Your task to perform on an android device: Search for the best selling books Image 0: 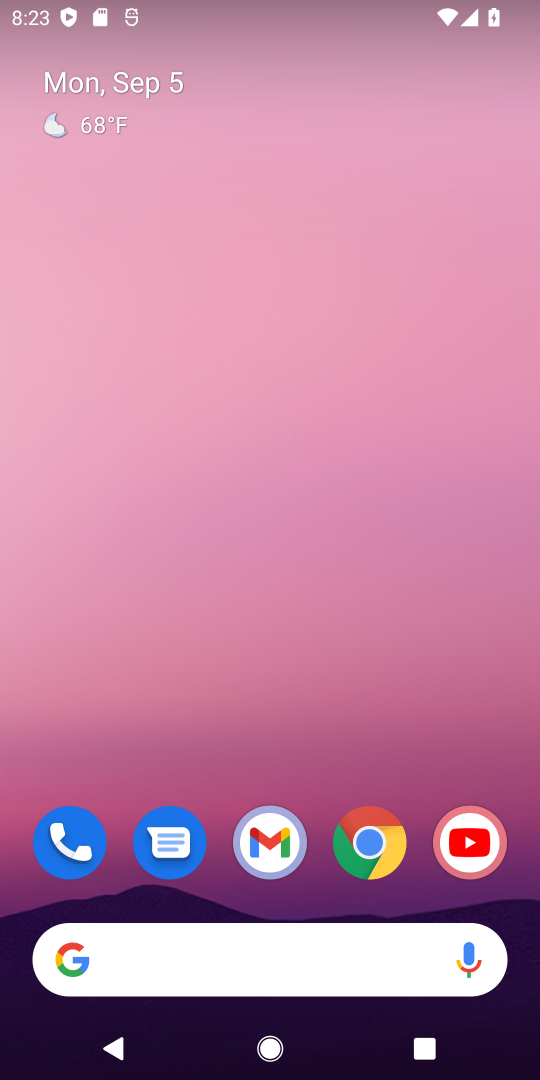
Step 0: click (371, 845)
Your task to perform on an android device: Search for the best selling books Image 1: 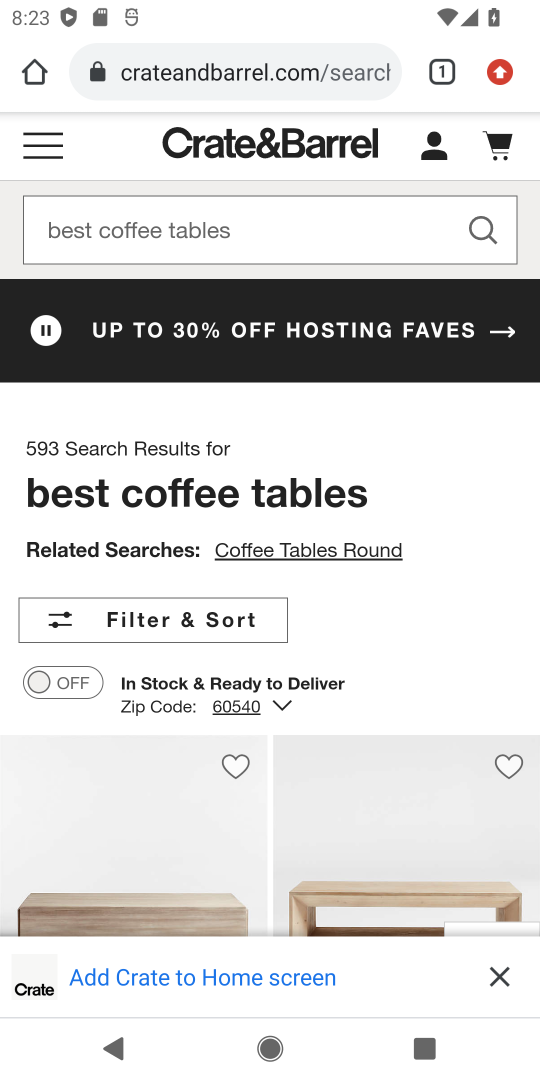
Step 1: click (319, 72)
Your task to perform on an android device: Search for the best selling books Image 2: 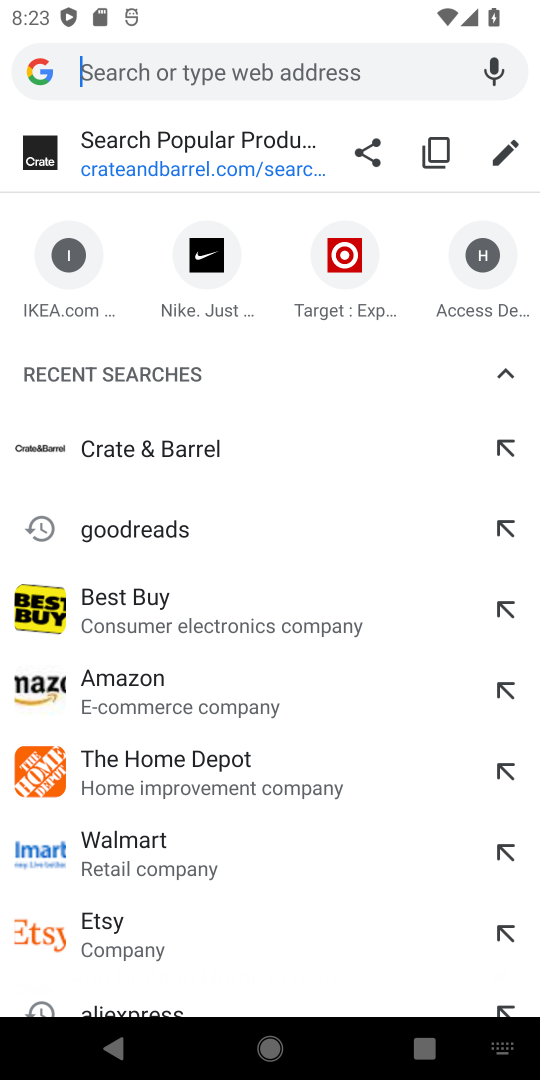
Step 2: type "best selling books"
Your task to perform on an android device: Search for the best selling books Image 3: 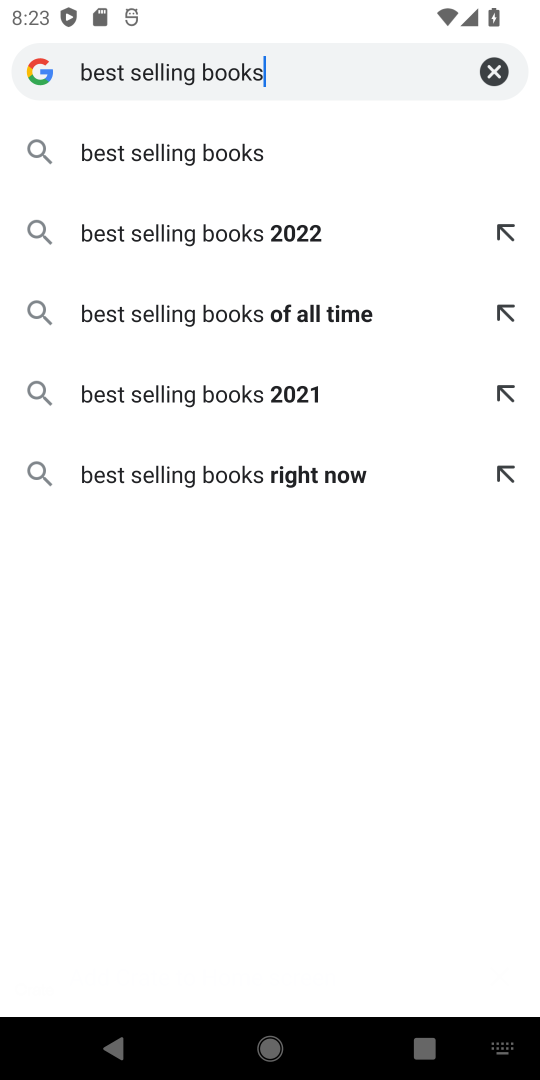
Step 3: click (171, 157)
Your task to perform on an android device: Search for the best selling books Image 4: 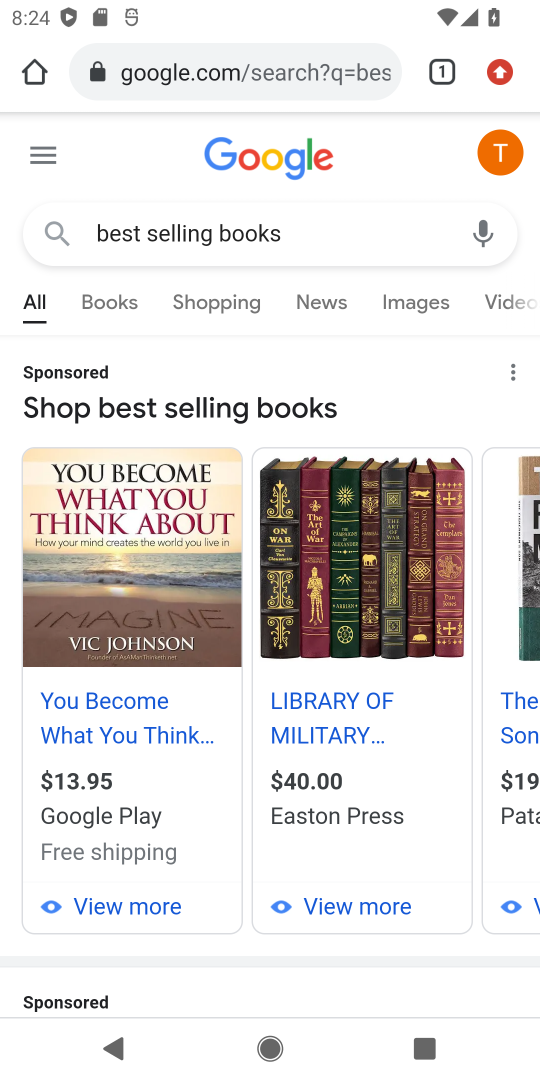
Step 4: task complete